Your task to perform on an android device: change notification settings in the gmail app Image 0: 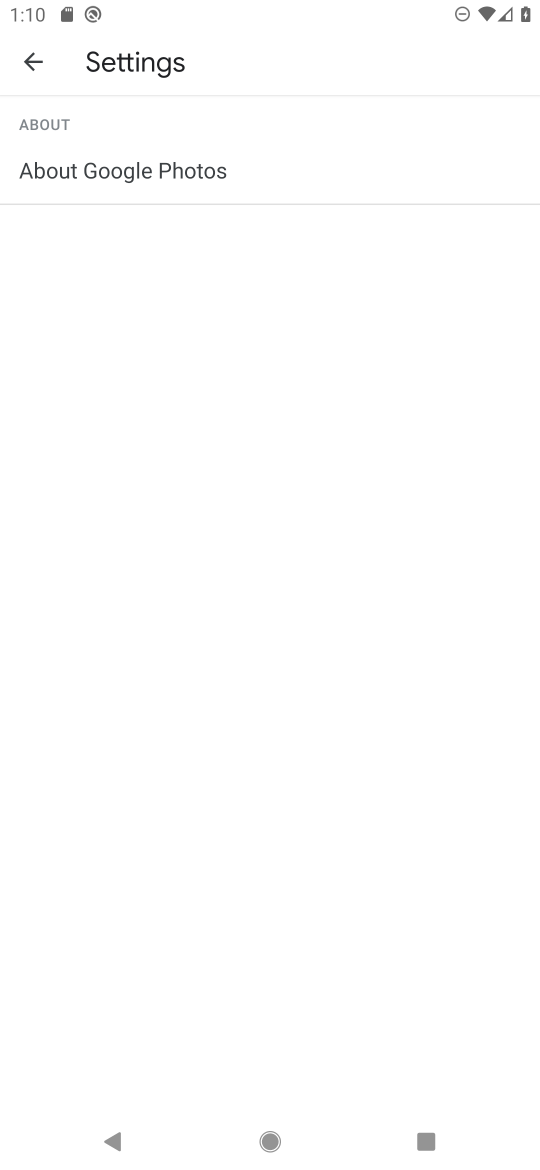
Step 0: press home button
Your task to perform on an android device: change notification settings in the gmail app Image 1: 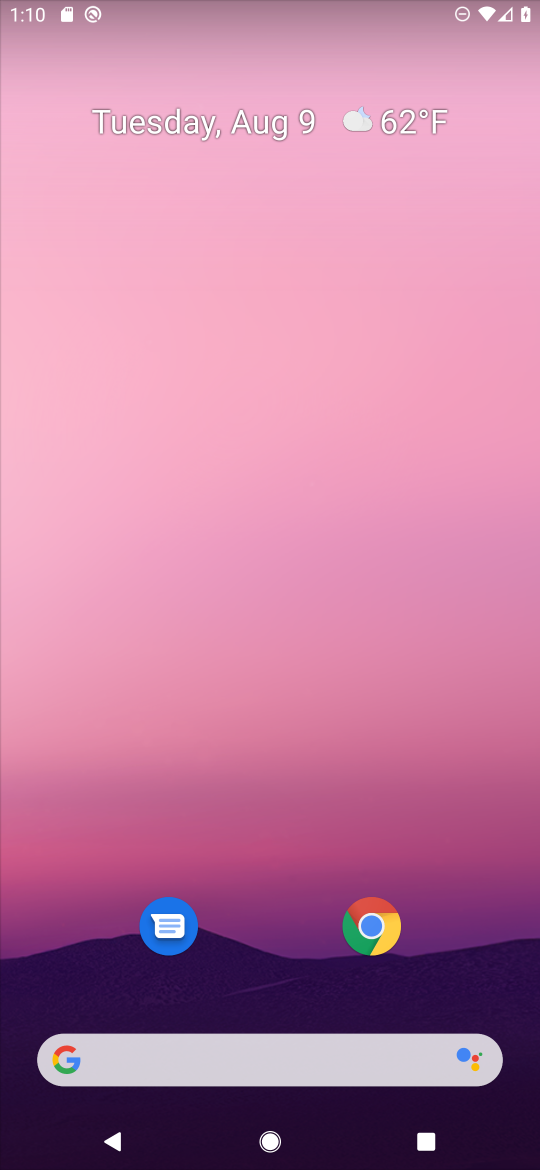
Step 1: drag from (142, 501) to (274, 117)
Your task to perform on an android device: change notification settings in the gmail app Image 2: 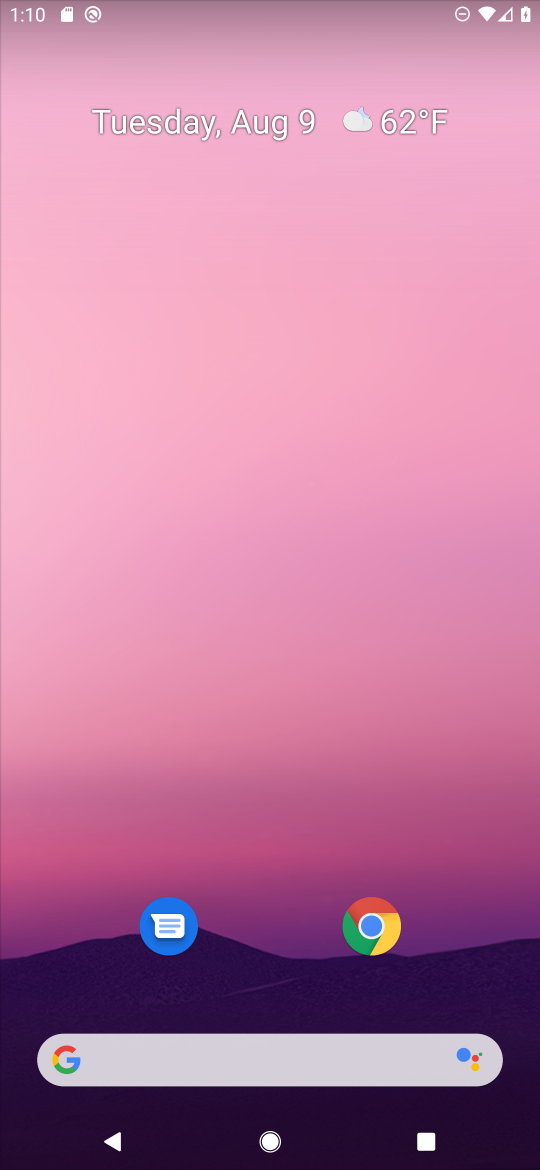
Step 2: drag from (58, 809) to (375, 115)
Your task to perform on an android device: change notification settings in the gmail app Image 3: 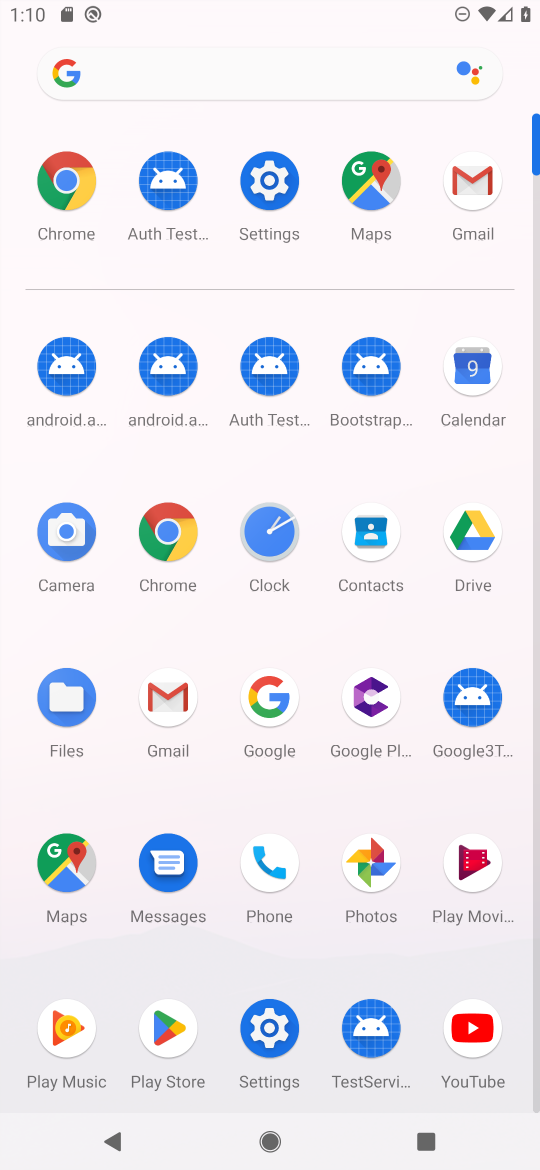
Step 3: click (247, 190)
Your task to perform on an android device: change notification settings in the gmail app Image 4: 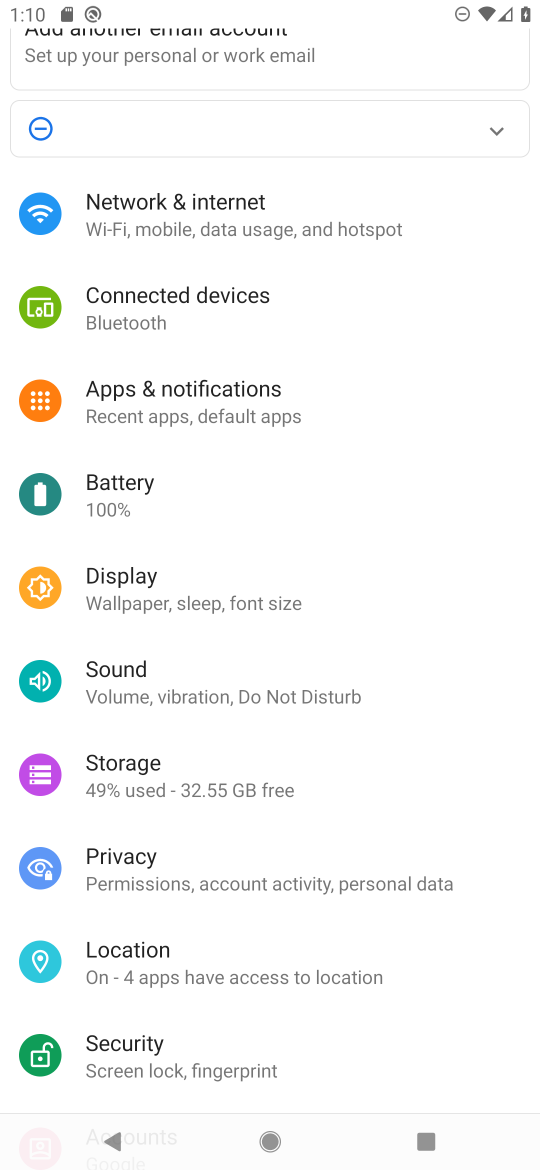
Step 4: click (209, 401)
Your task to perform on an android device: change notification settings in the gmail app Image 5: 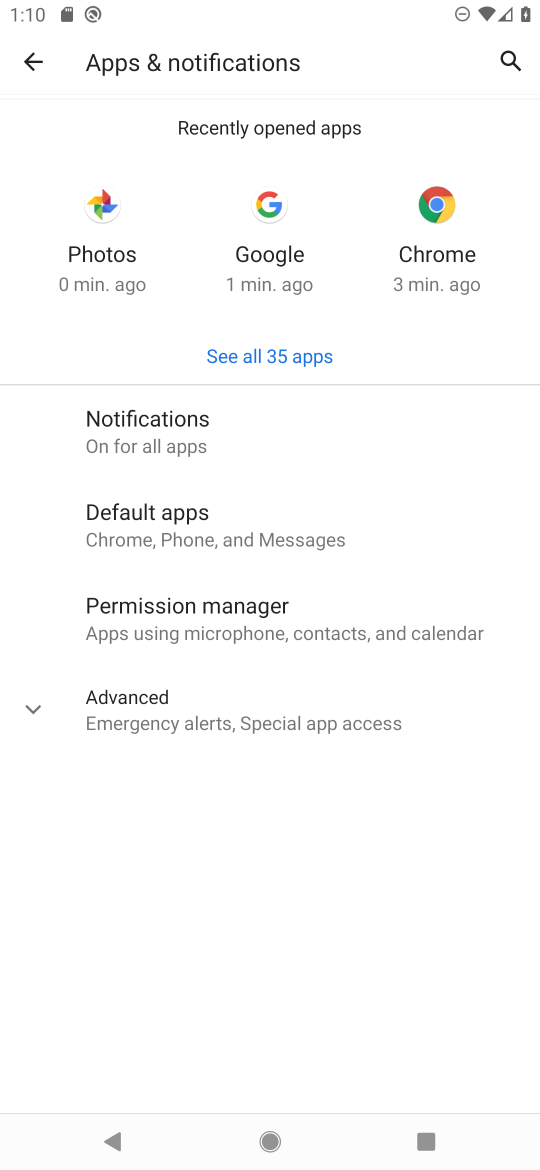
Step 5: click (183, 440)
Your task to perform on an android device: change notification settings in the gmail app Image 6: 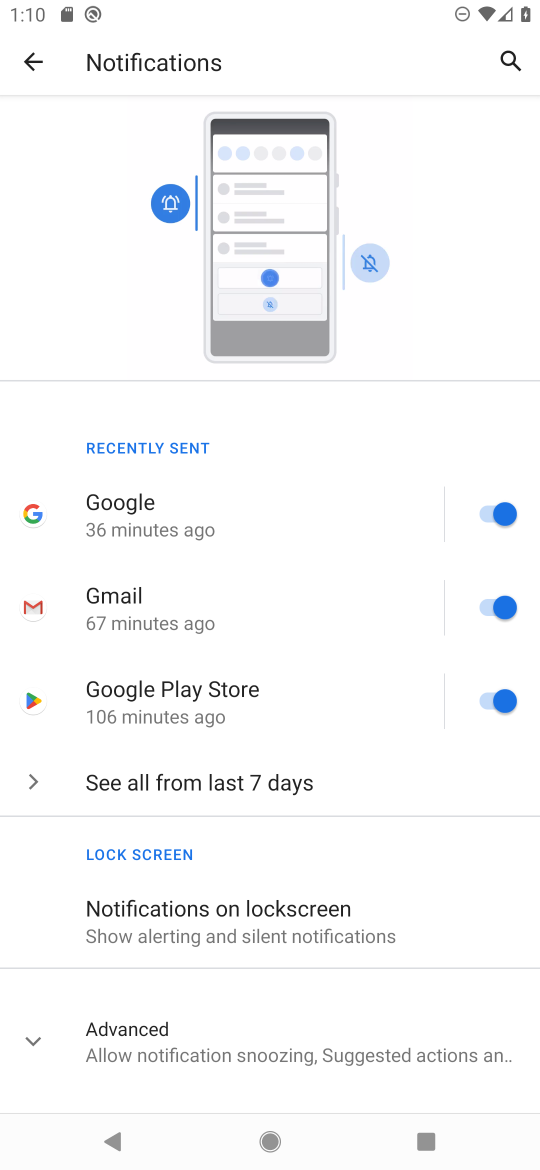
Step 6: click (507, 598)
Your task to perform on an android device: change notification settings in the gmail app Image 7: 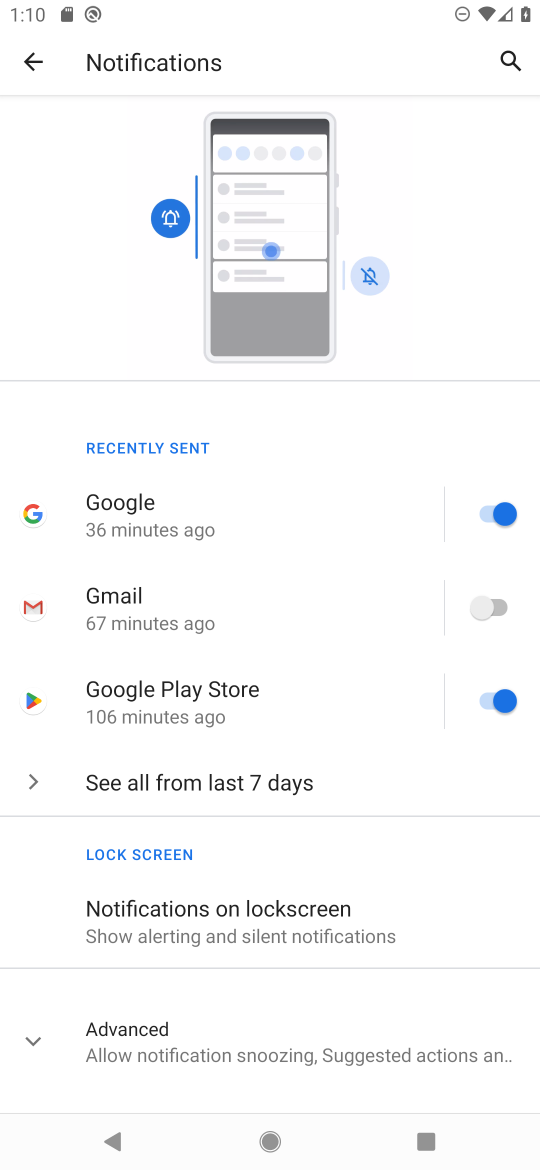
Step 7: task complete